Your task to perform on an android device: Open Chrome and go to the settings page Image 0: 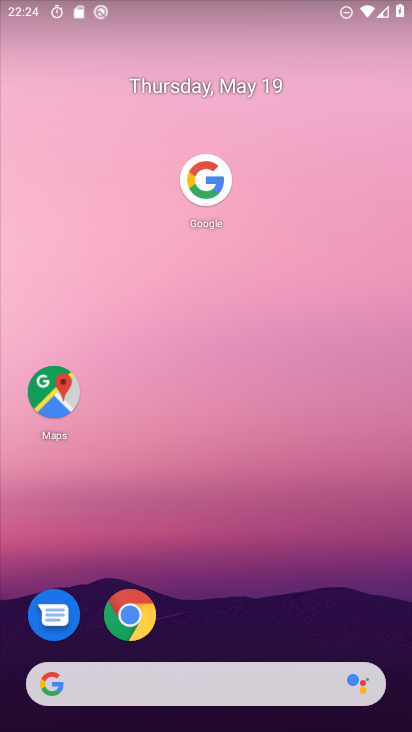
Step 0: click (137, 613)
Your task to perform on an android device: Open Chrome and go to the settings page Image 1: 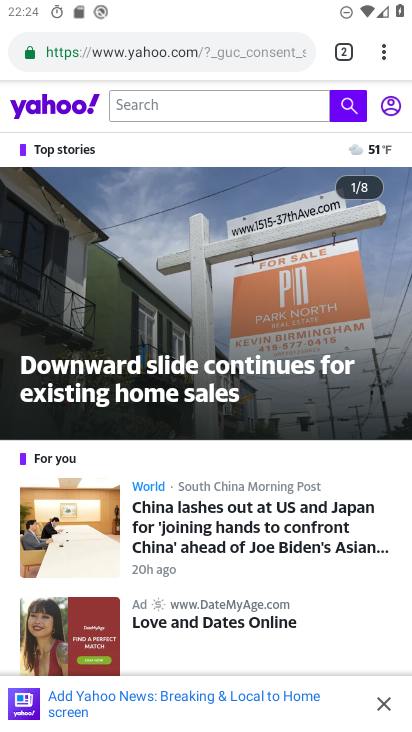
Step 1: click (376, 49)
Your task to perform on an android device: Open Chrome and go to the settings page Image 2: 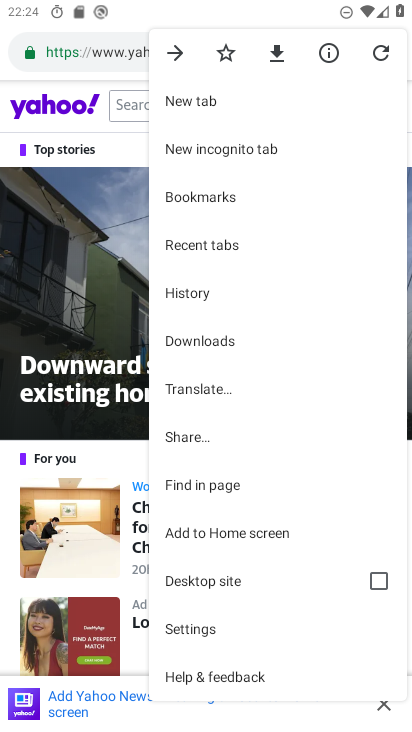
Step 2: click (201, 627)
Your task to perform on an android device: Open Chrome and go to the settings page Image 3: 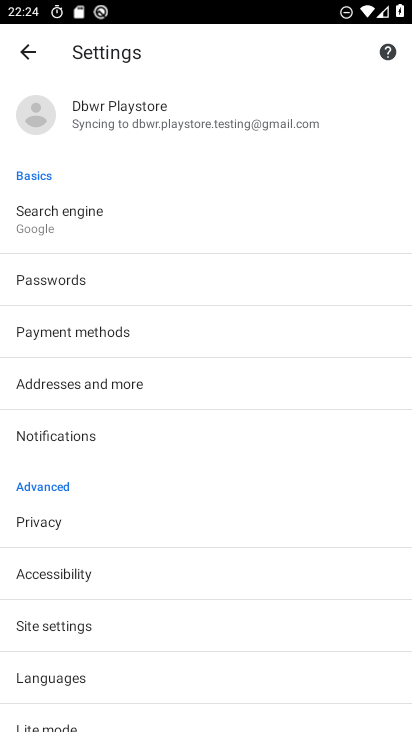
Step 3: task complete